Your task to perform on an android device: Open wifi settings Image 0: 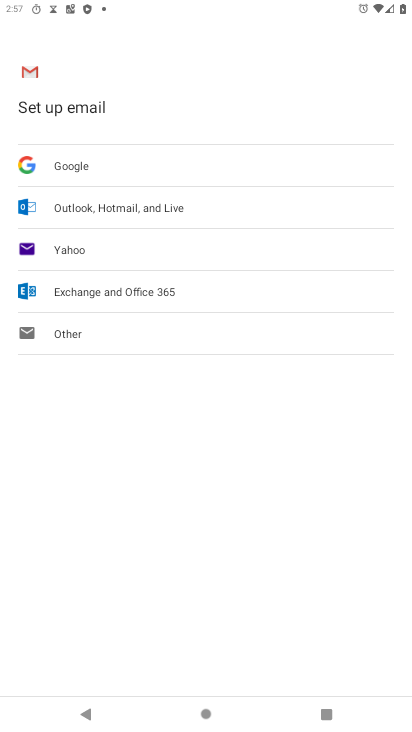
Step 0: press home button
Your task to perform on an android device: Open wifi settings Image 1: 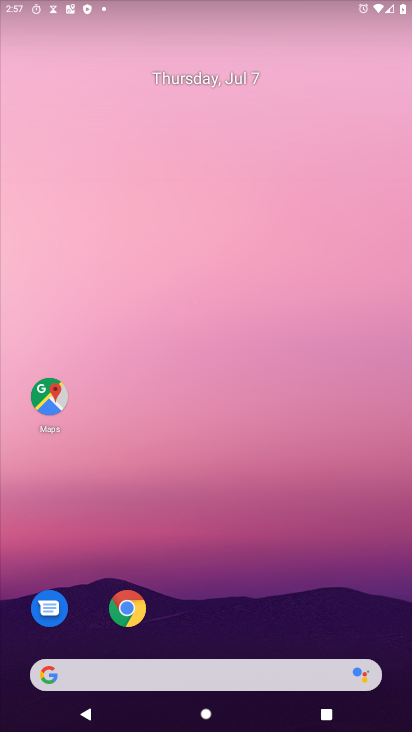
Step 1: drag from (226, 717) to (228, 104)
Your task to perform on an android device: Open wifi settings Image 2: 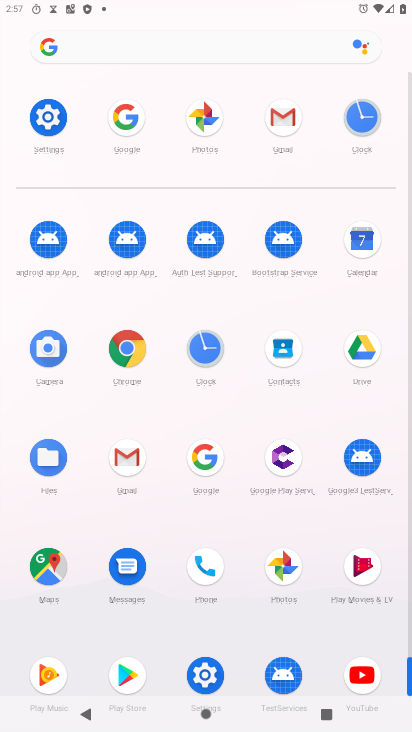
Step 2: click (49, 113)
Your task to perform on an android device: Open wifi settings Image 3: 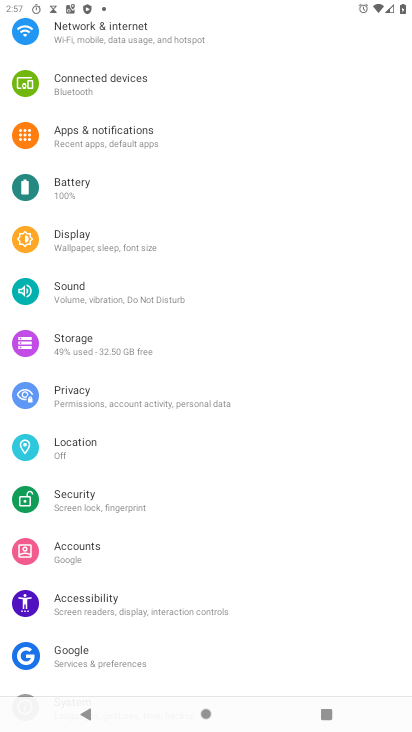
Step 3: click (111, 31)
Your task to perform on an android device: Open wifi settings Image 4: 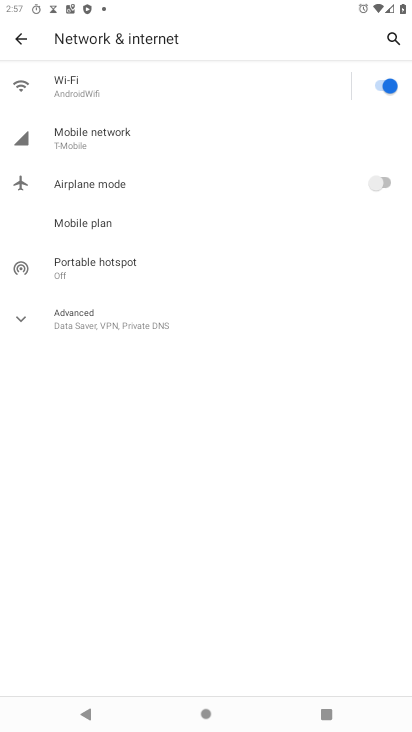
Step 4: click (74, 83)
Your task to perform on an android device: Open wifi settings Image 5: 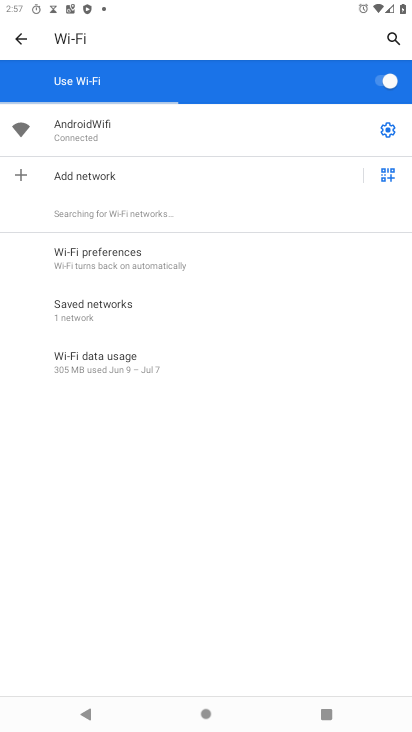
Step 5: task complete